Your task to perform on an android device: Open settings on Google Maps Image 0: 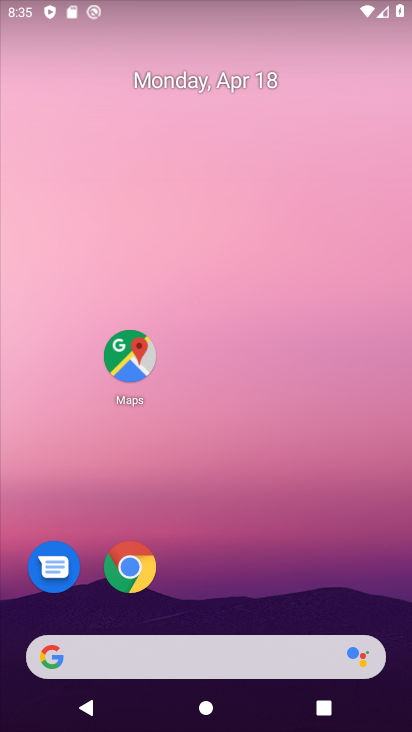
Step 0: click (262, 431)
Your task to perform on an android device: Open settings on Google Maps Image 1: 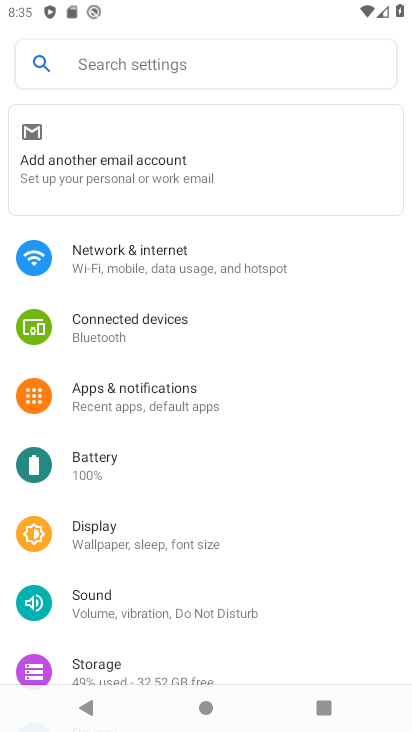
Step 1: press home button
Your task to perform on an android device: Open settings on Google Maps Image 2: 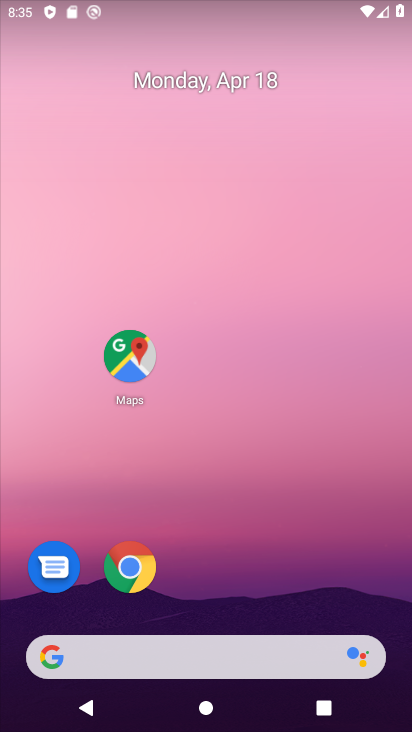
Step 2: click (127, 358)
Your task to perform on an android device: Open settings on Google Maps Image 3: 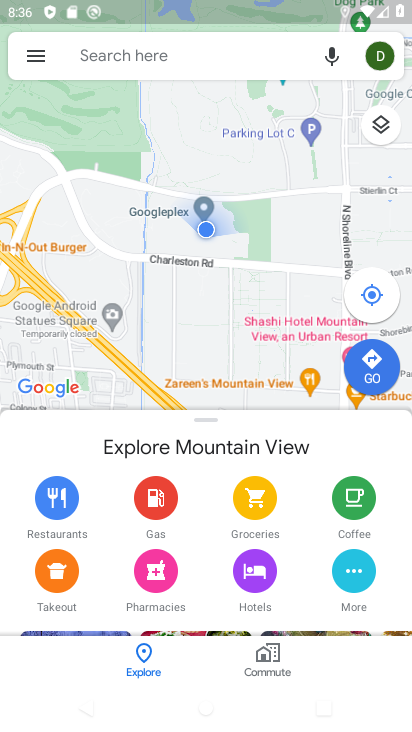
Step 3: click (39, 61)
Your task to perform on an android device: Open settings on Google Maps Image 4: 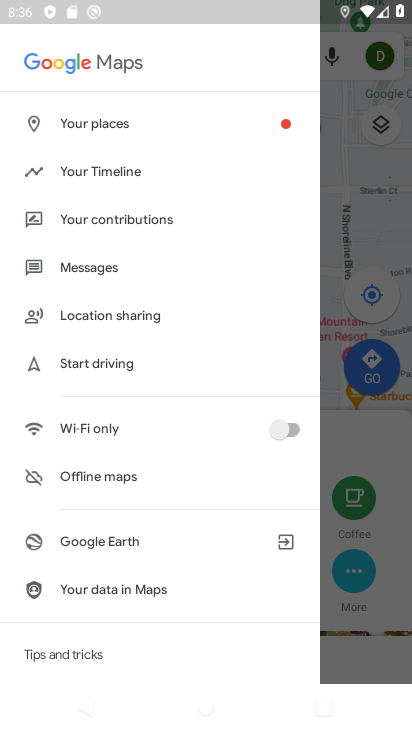
Step 4: drag from (105, 557) to (162, 433)
Your task to perform on an android device: Open settings on Google Maps Image 5: 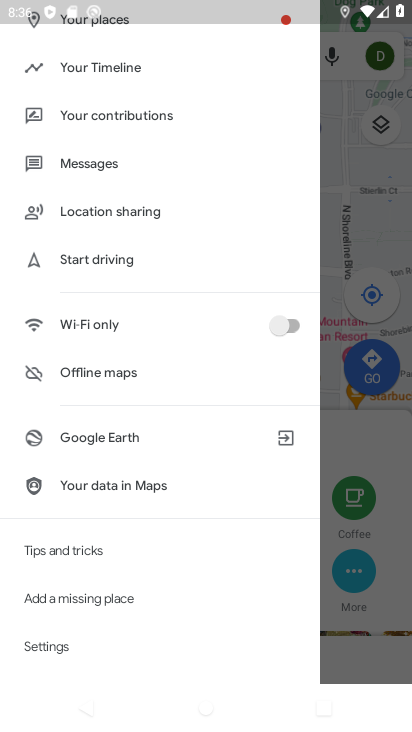
Step 5: click (45, 638)
Your task to perform on an android device: Open settings on Google Maps Image 6: 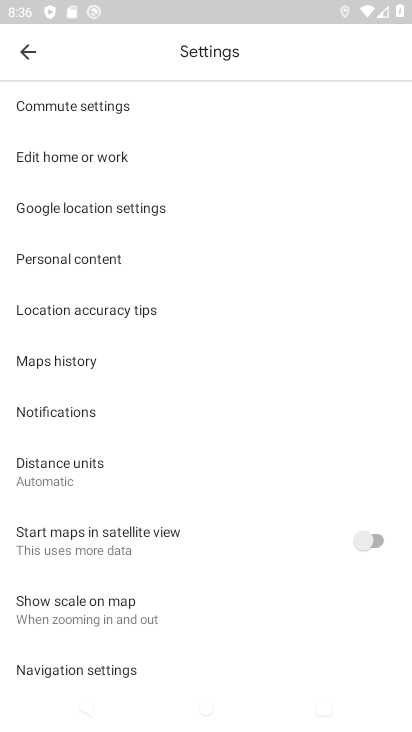
Step 6: task complete